Your task to perform on an android device: open sync settings in chrome Image 0: 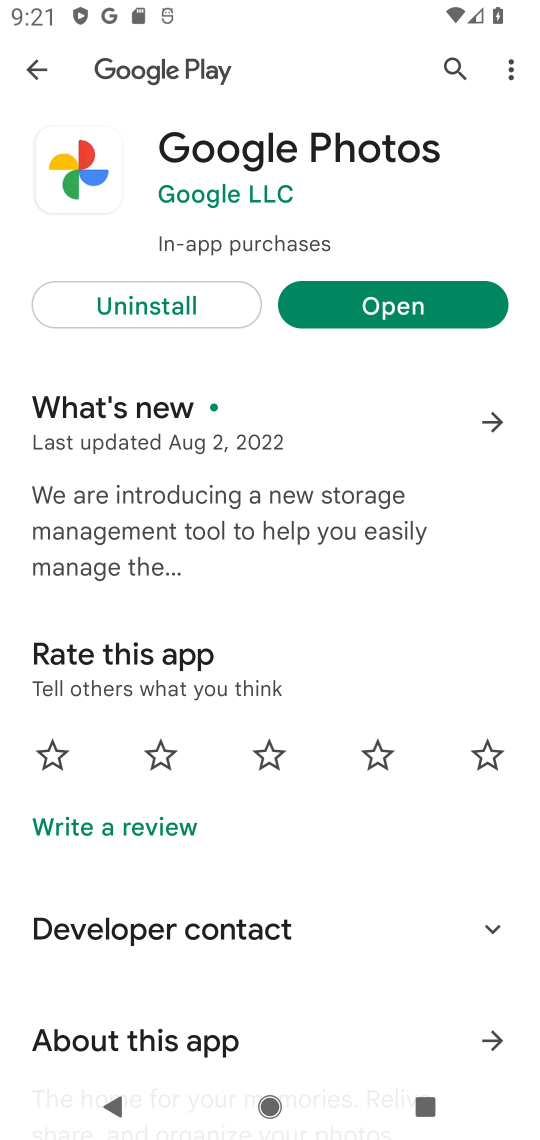
Step 0: press home button
Your task to perform on an android device: open sync settings in chrome Image 1: 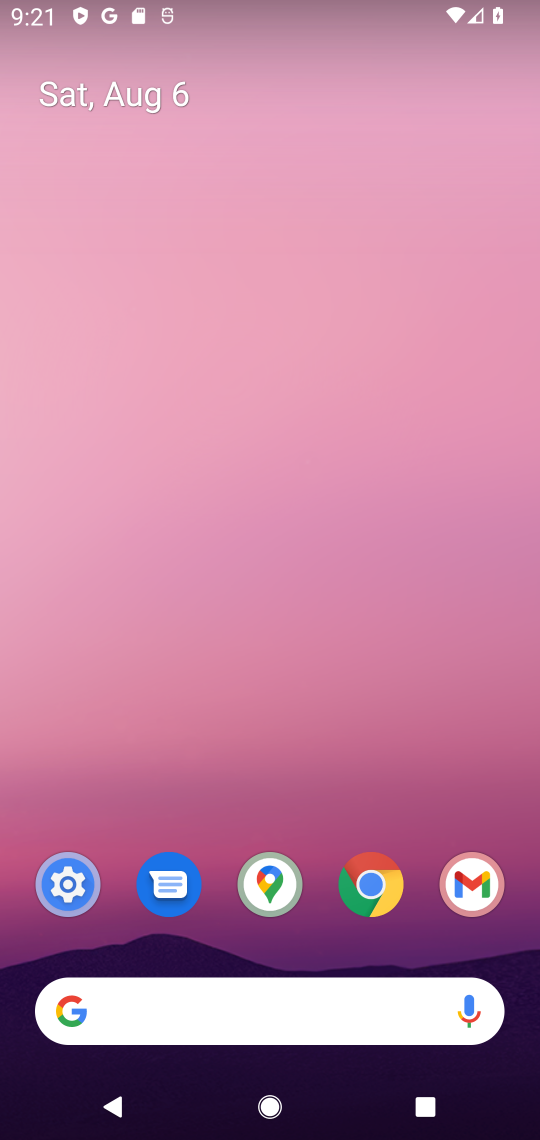
Step 1: click (372, 883)
Your task to perform on an android device: open sync settings in chrome Image 2: 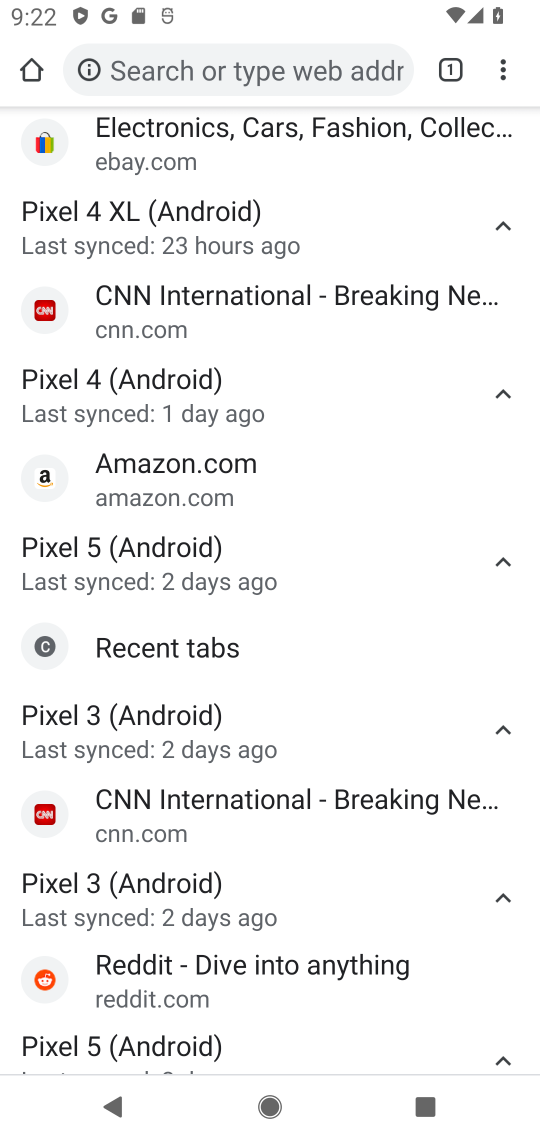
Step 2: click (493, 70)
Your task to perform on an android device: open sync settings in chrome Image 3: 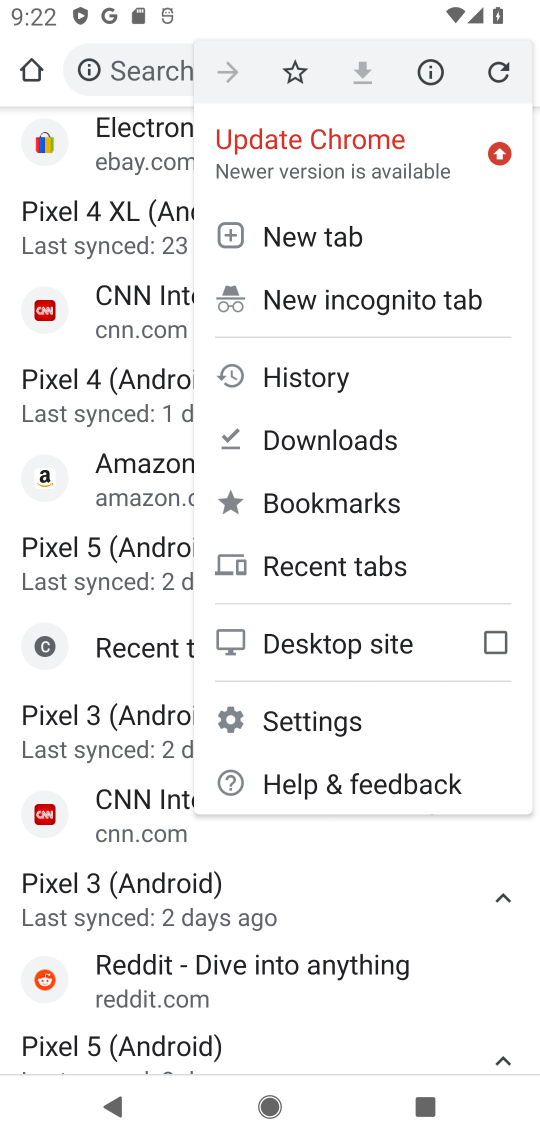
Step 3: click (315, 720)
Your task to perform on an android device: open sync settings in chrome Image 4: 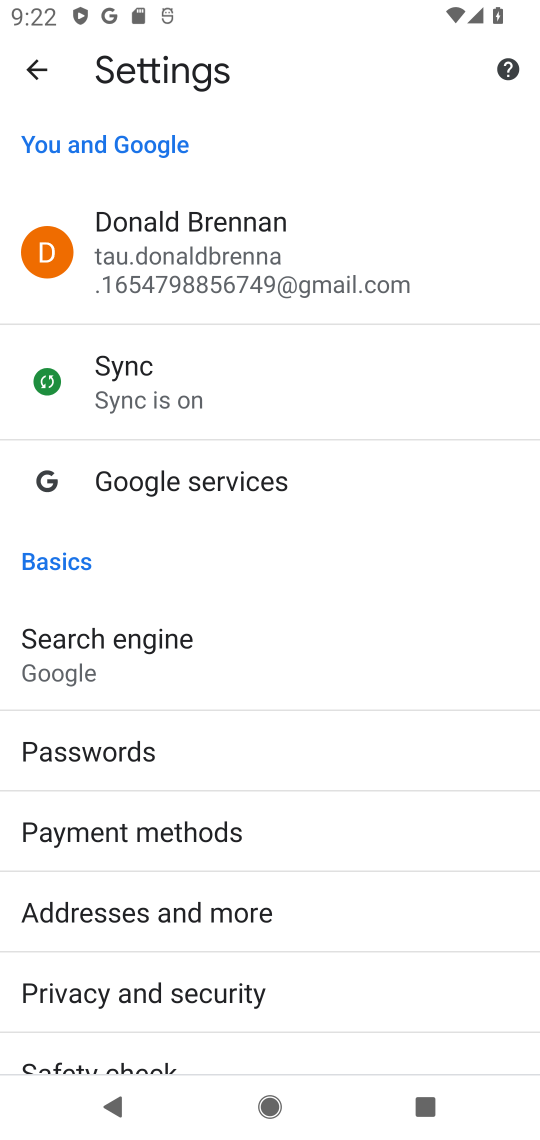
Step 4: click (121, 361)
Your task to perform on an android device: open sync settings in chrome Image 5: 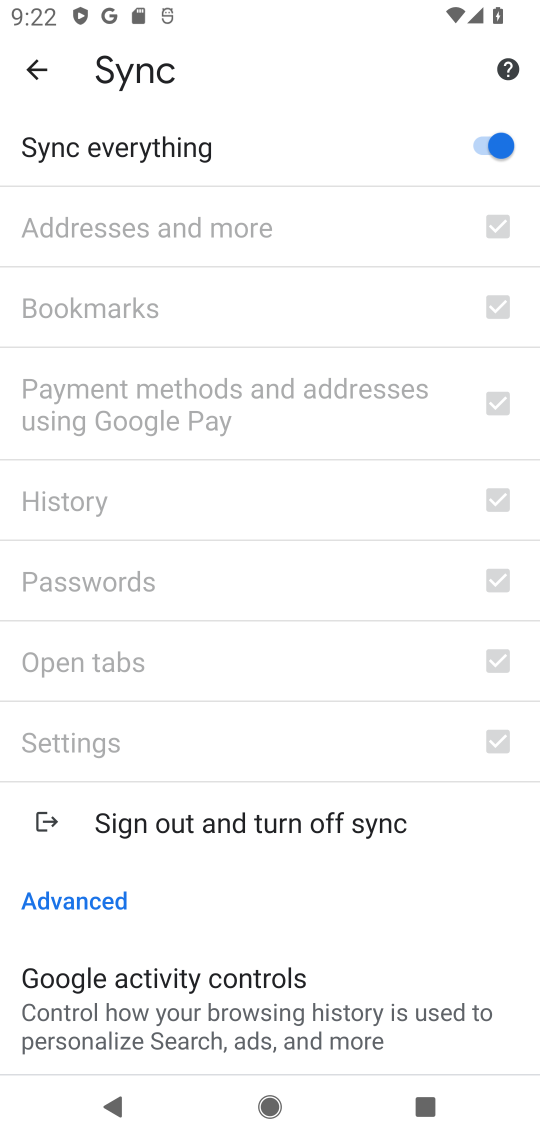
Step 5: task complete